Your task to perform on an android device: change timer sound Image 0: 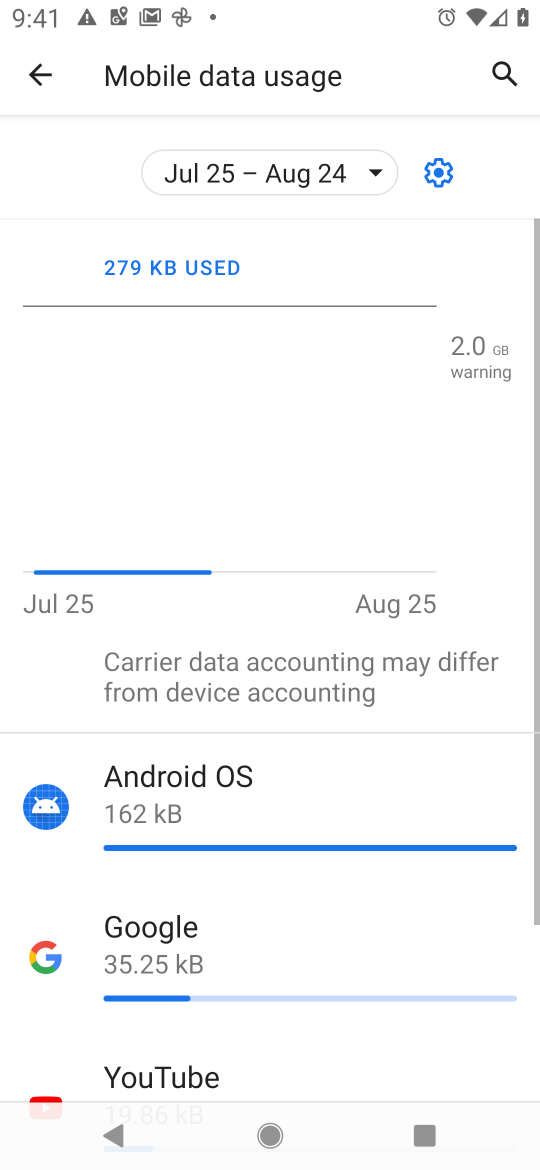
Step 0: press home button
Your task to perform on an android device: change timer sound Image 1: 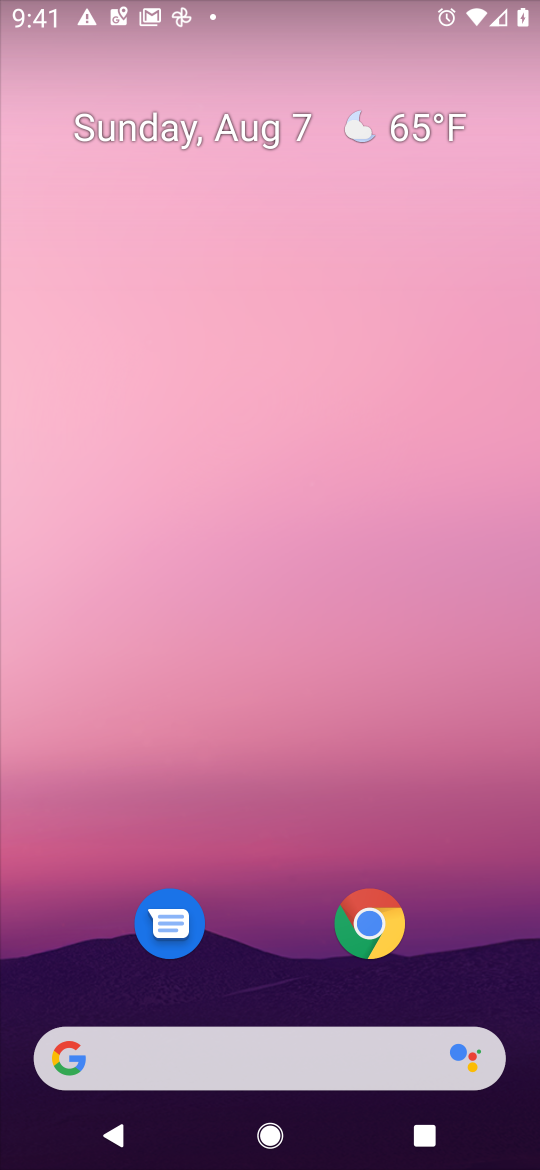
Step 1: drag from (504, 1005) to (317, 28)
Your task to perform on an android device: change timer sound Image 2: 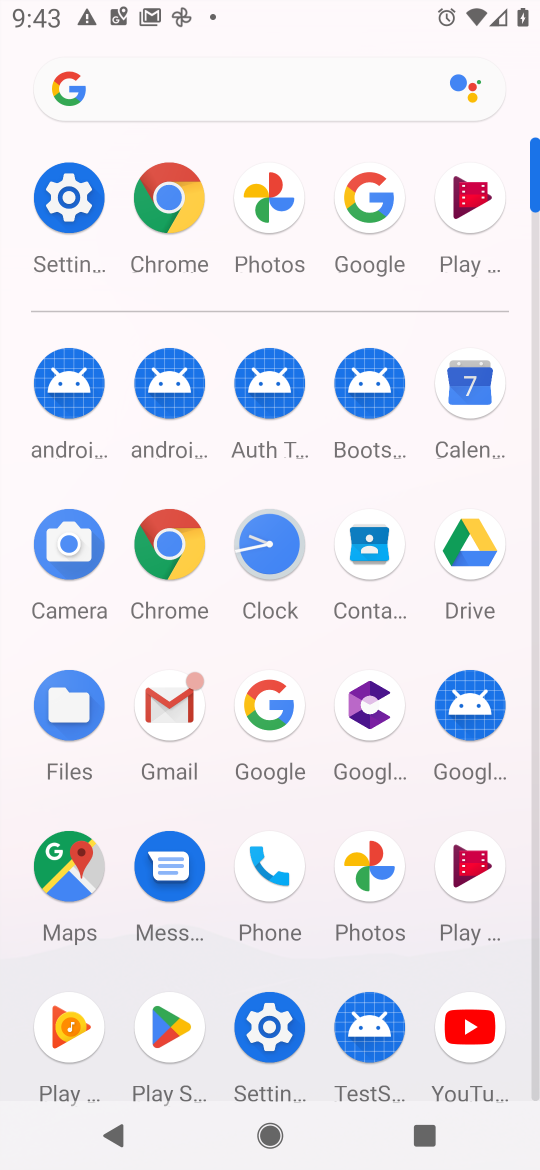
Step 2: click (270, 545)
Your task to perform on an android device: change timer sound Image 3: 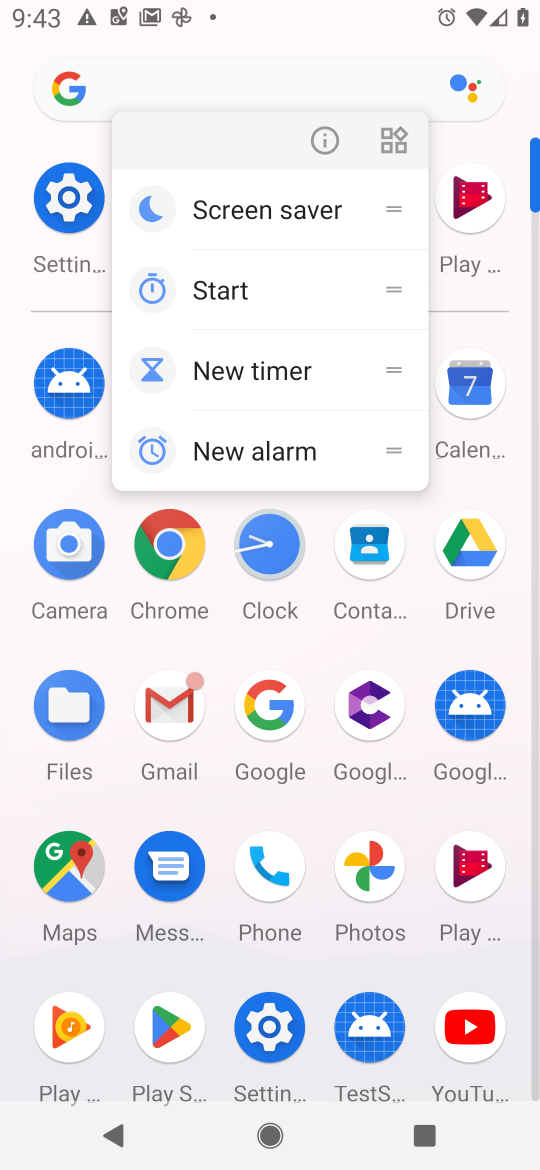
Step 3: click (163, 558)
Your task to perform on an android device: change timer sound Image 4: 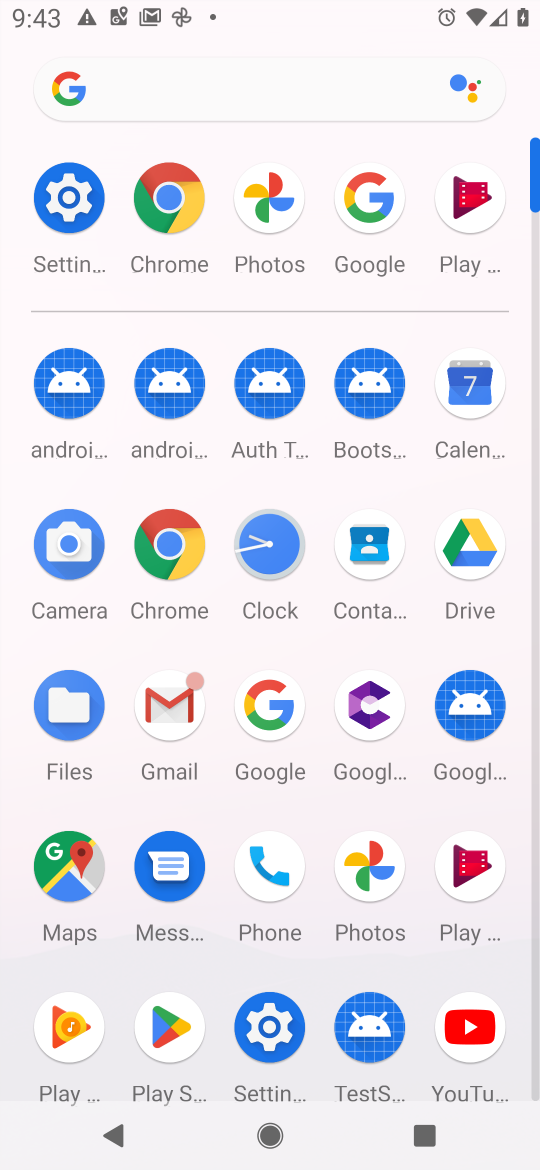
Step 4: click (273, 562)
Your task to perform on an android device: change timer sound Image 5: 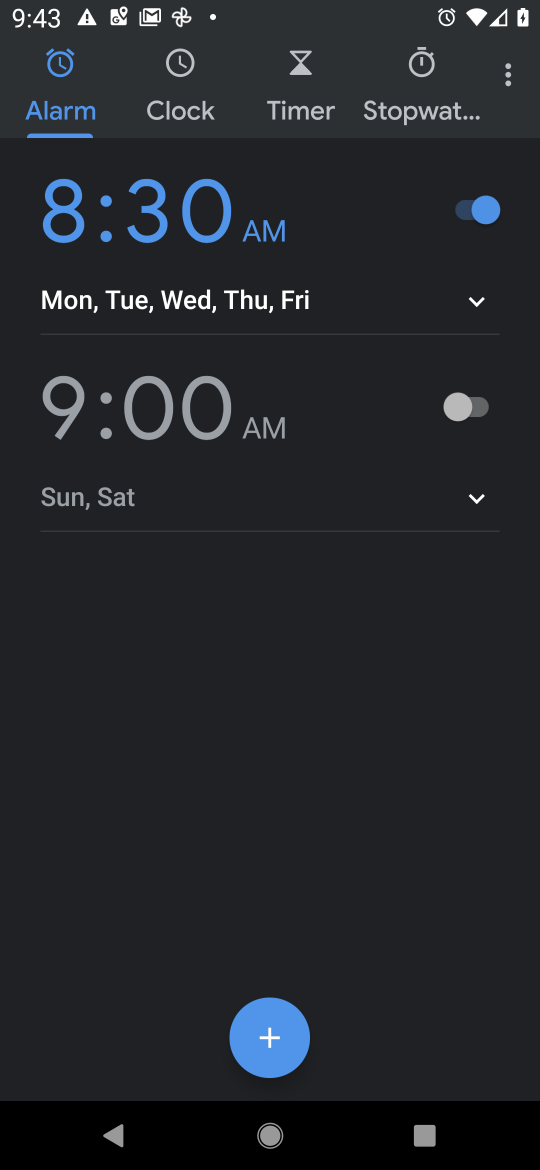
Step 5: click (510, 78)
Your task to perform on an android device: change timer sound Image 6: 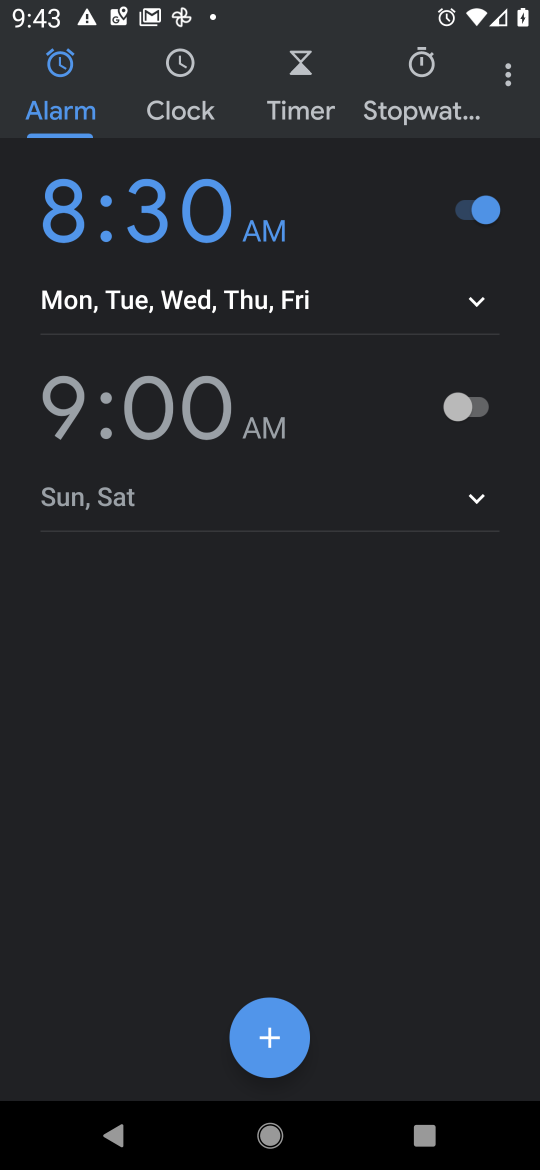
Step 6: click (508, 76)
Your task to perform on an android device: change timer sound Image 7: 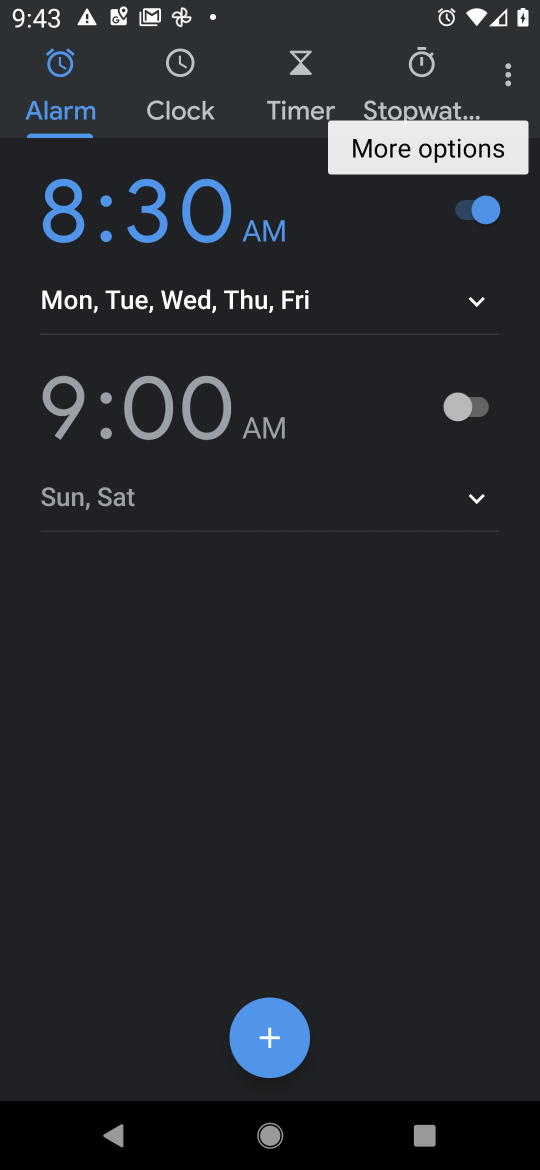
Step 7: click (507, 76)
Your task to perform on an android device: change timer sound Image 8: 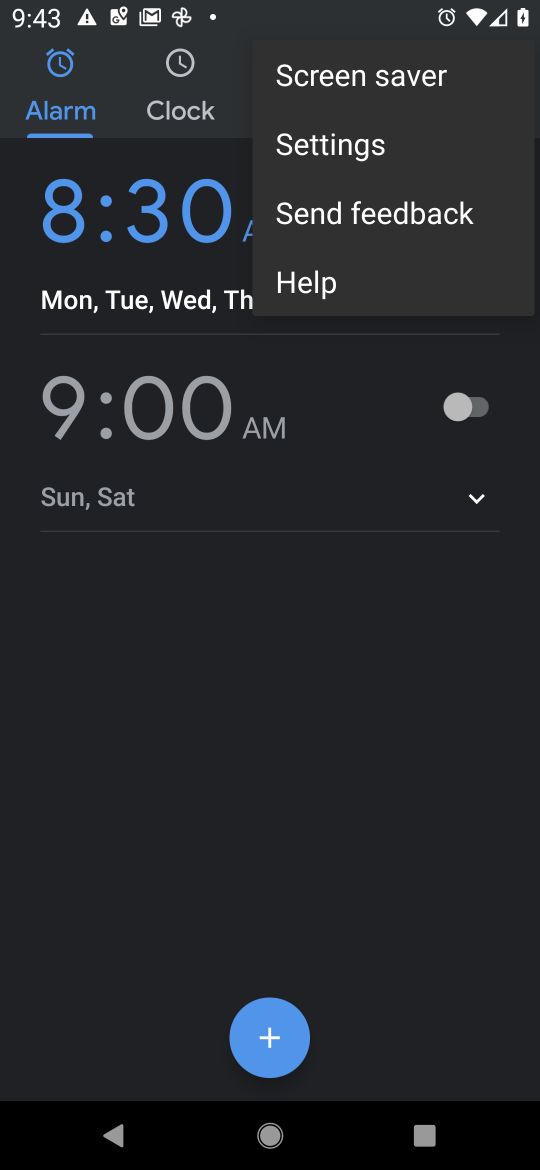
Step 8: click (328, 174)
Your task to perform on an android device: change timer sound Image 9: 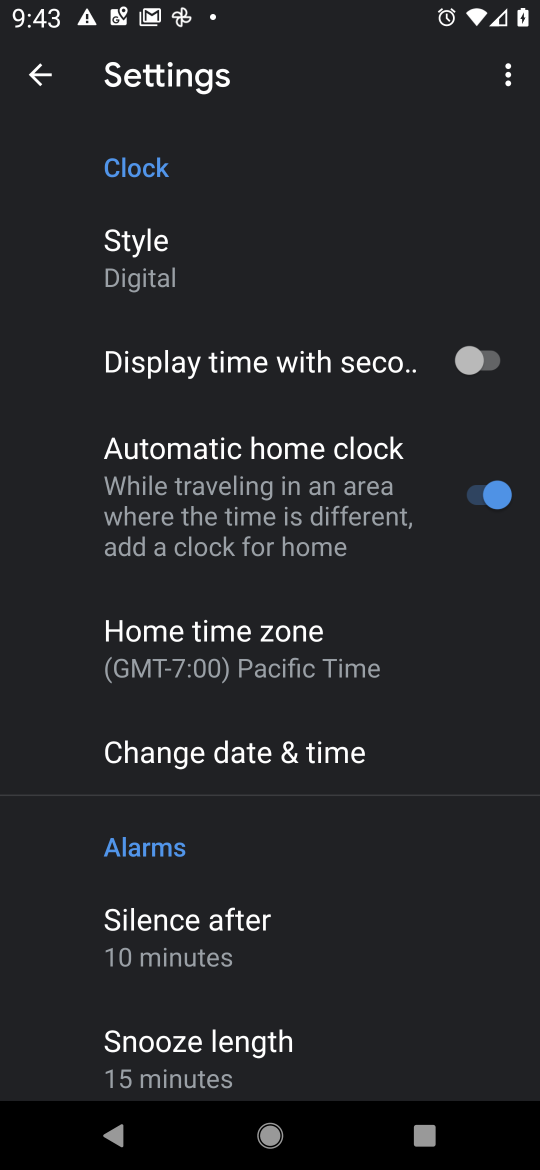
Step 9: drag from (206, 1050) to (165, 406)
Your task to perform on an android device: change timer sound Image 10: 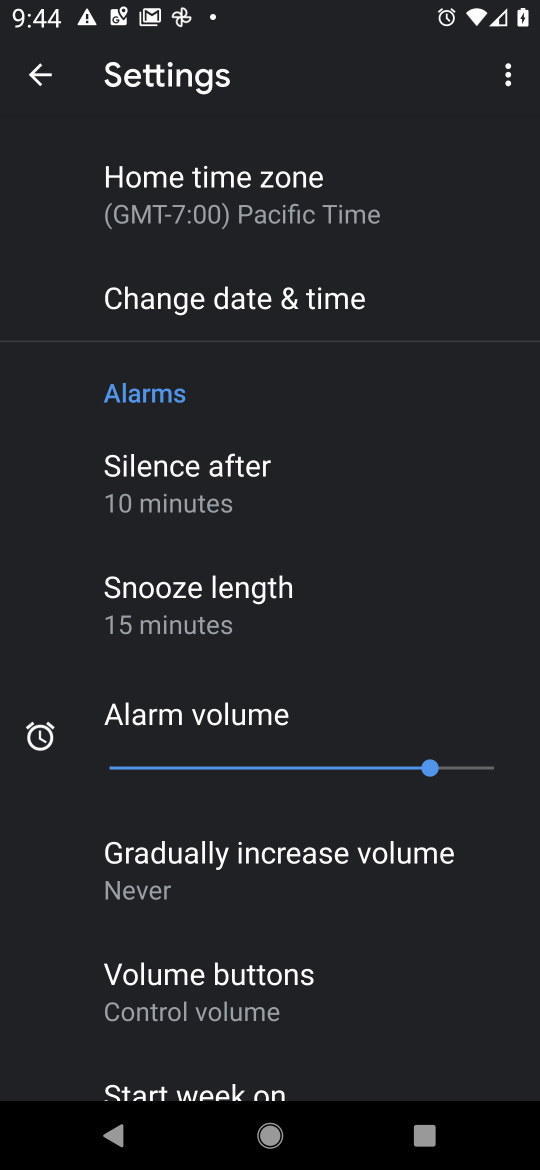
Step 10: drag from (203, 946) to (147, 342)
Your task to perform on an android device: change timer sound Image 11: 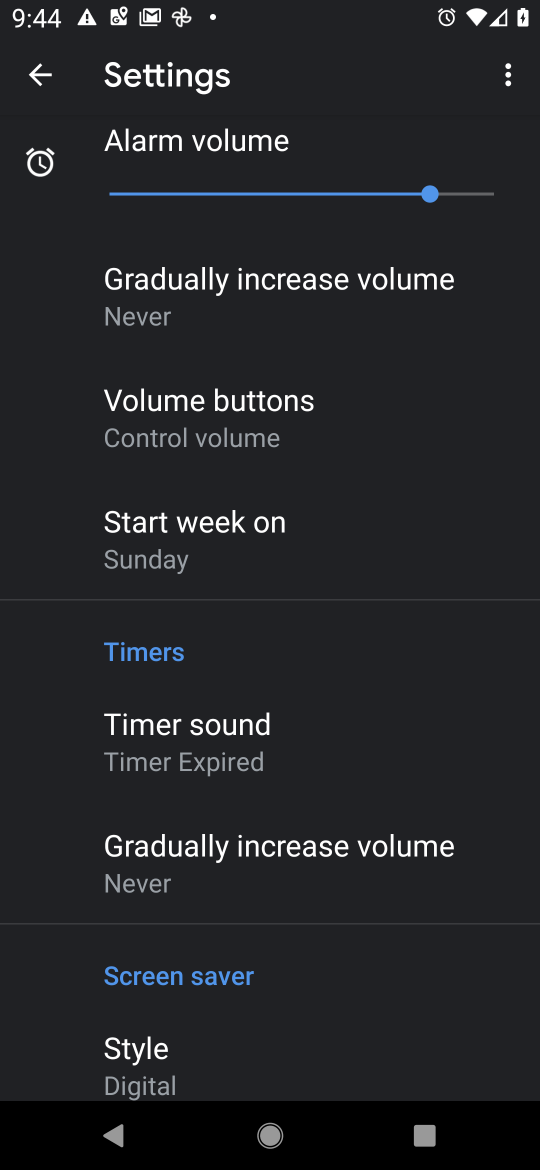
Step 11: click (187, 759)
Your task to perform on an android device: change timer sound Image 12: 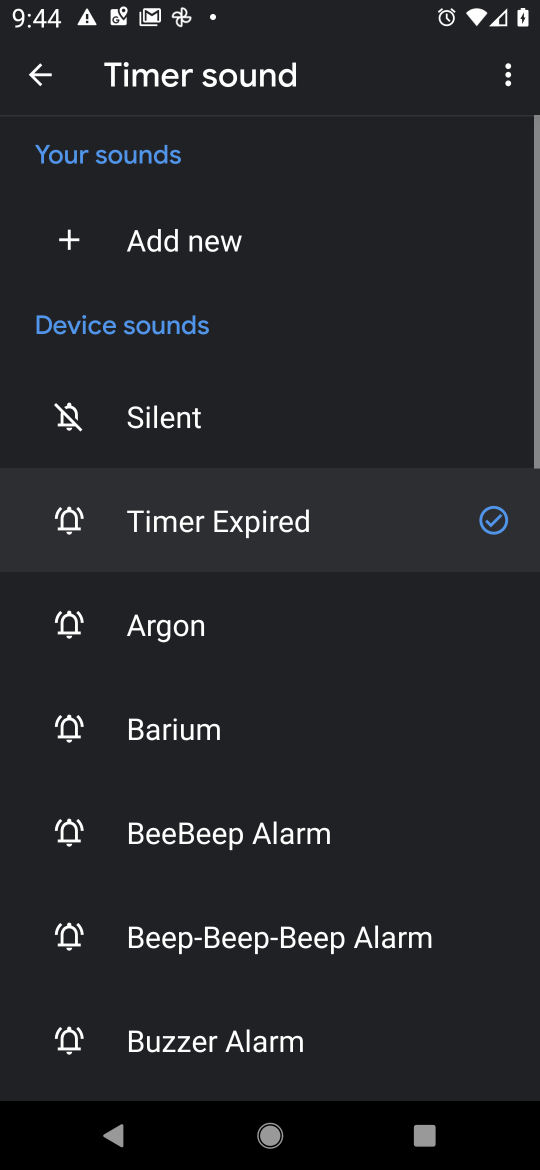
Step 12: click (259, 740)
Your task to perform on an android device: change timer sound Image 13: 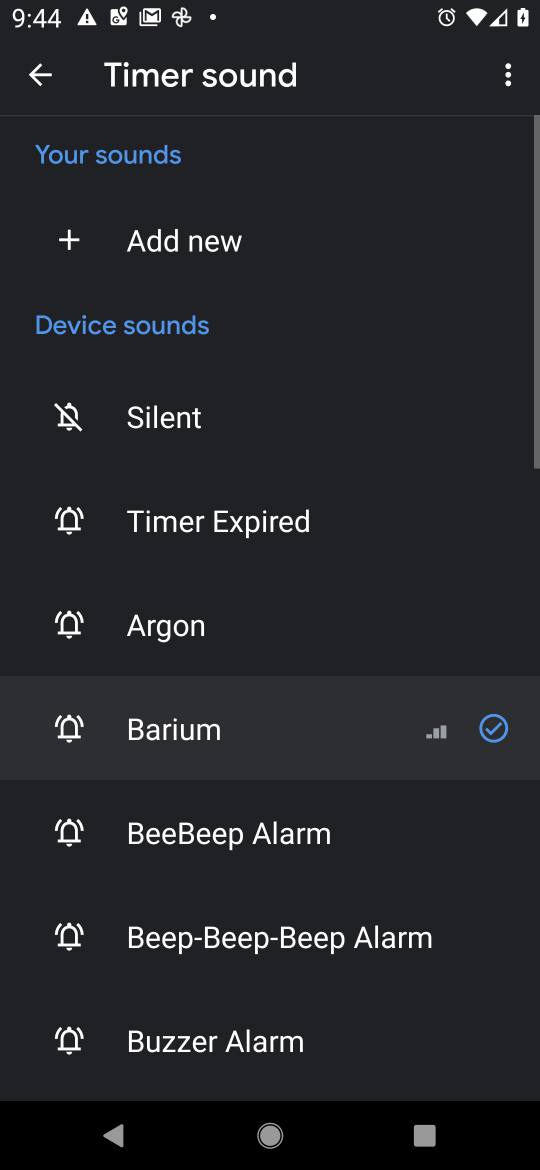
Step 13: task complete